Your task to perform on an android device: add a contact in the contacts app Image 0: 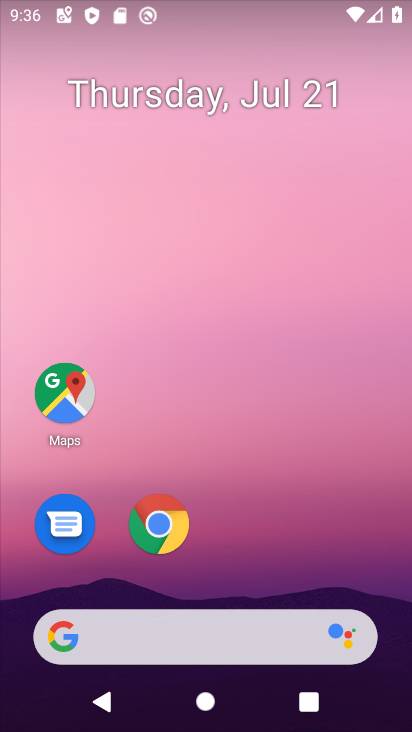
Step 0: drag from (204, 618) to (296, 99)
Your task to perform on an android device: add a contact in the contacts app Image 1: 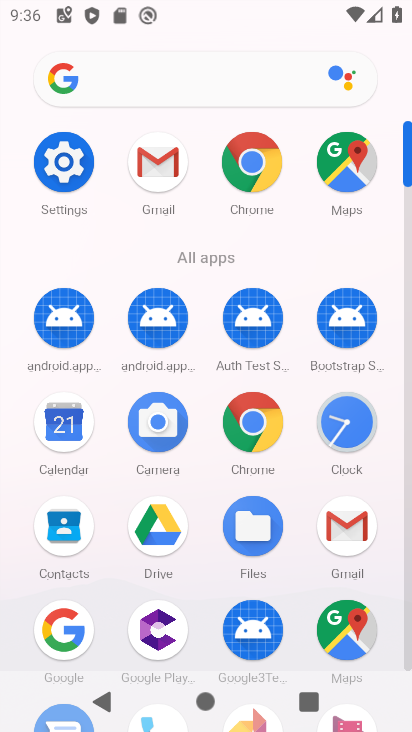
Step 1: click (53, 525)
Your task to perform on an android device: add a contact in the contacts app Image 2: 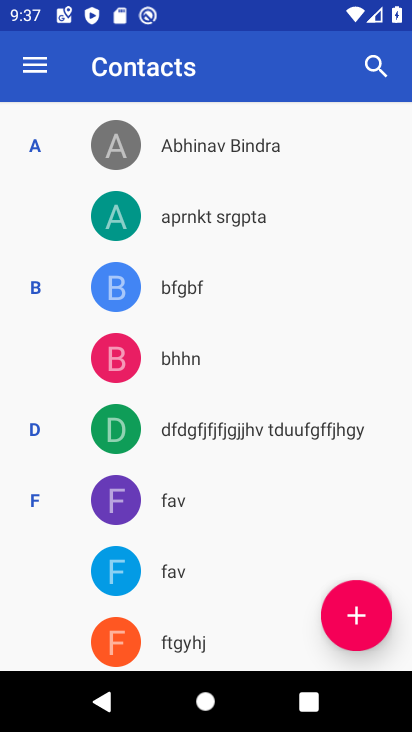
Step 2: click (362, 607)
Your task to perform on an android device: add a contact in the contacts app Image 3: 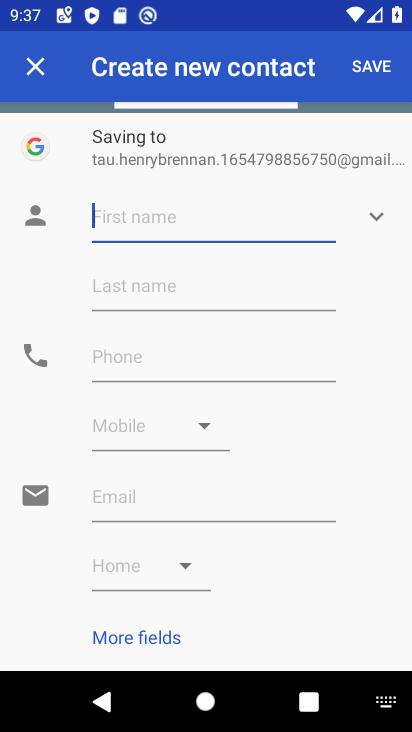
Step 3: type "netfghy"
Your task to perform on an android device: add a contact in the contacts app Image 4: 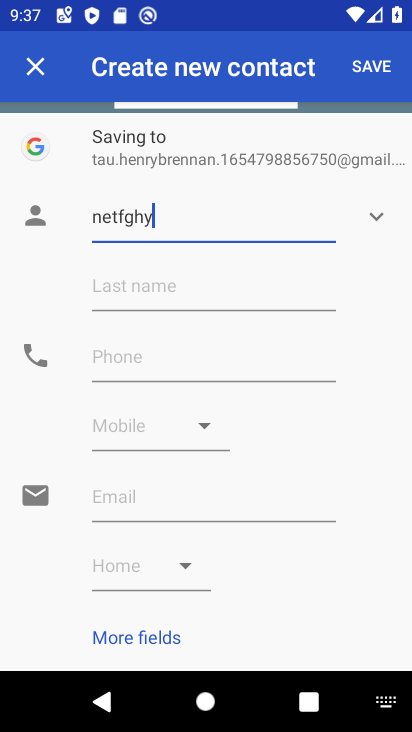
Step 4: click (121, 352)
Your task to perform on an android device: add a contact in the contacts app Image 5: 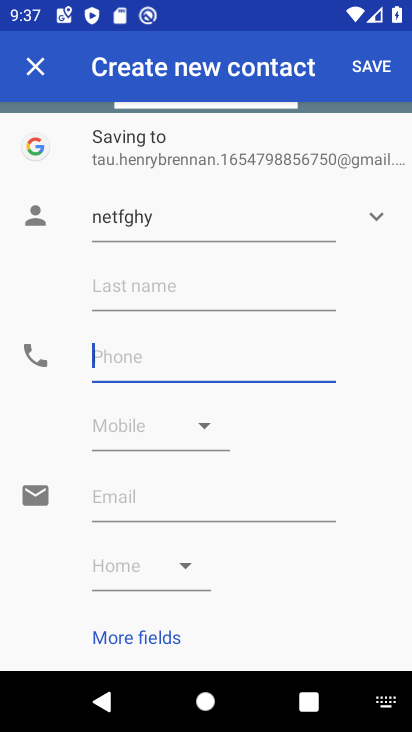
Step 5: type "402165"
Your task to perform on an android device: add a contact in the contacts app Image 6: 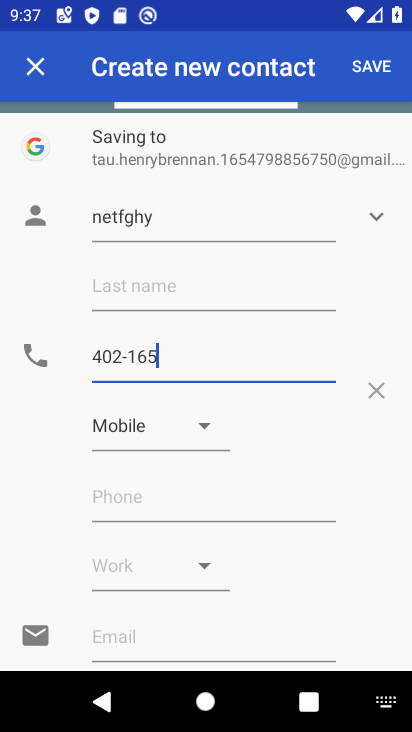
Step 6: click (377, 60)
Your task to perform on an android device: add a contact in the contacts app Image 7: 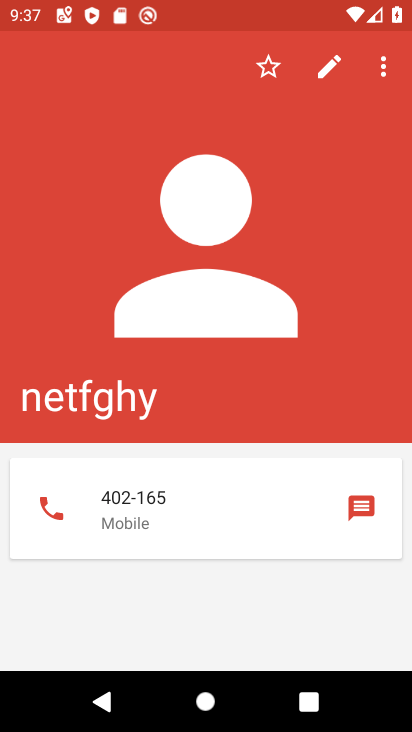
Step 7: task complete